Your task to perform on an android device: change notification settings in the gmail app Image 0: 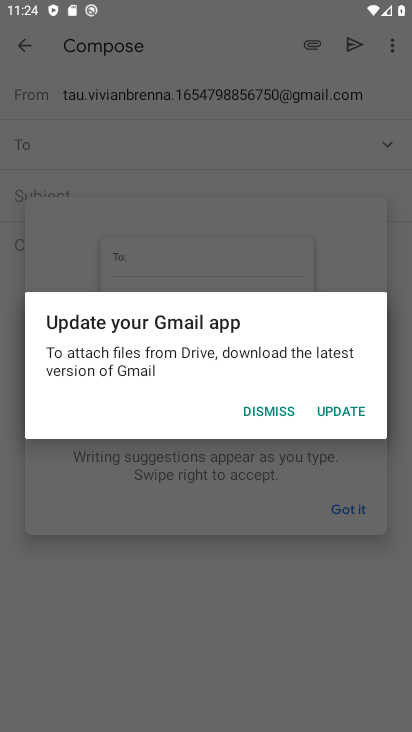
Step 0: press home button
Your task to perform on an android device: change notification settings in the gmail app Image 1: 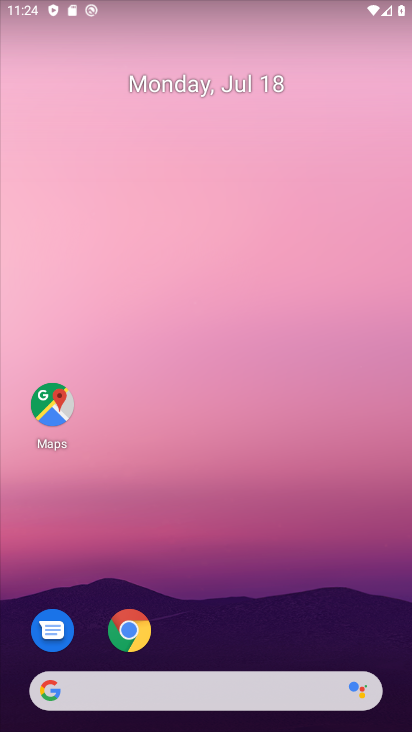
Step 1: drag from (227, 611) to (282, 177)
Your task to perform on an android device: change notification settings in the gmail app Image 2: 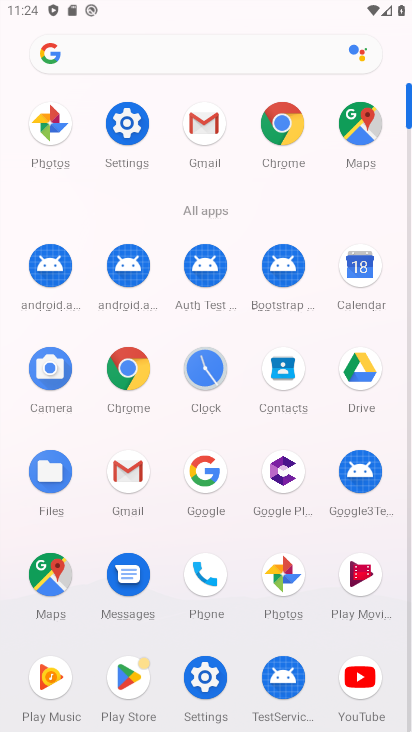
Step 2: click (133, 488)
Your task to perform on an android device: change notification settings in the gmail app Image 3: 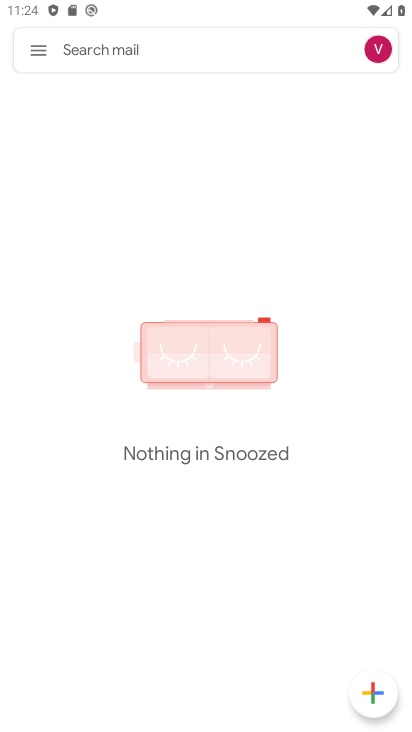
Step 3: click (42, 42)
Your task to perform on an android device: change notification settings in the gmail app Image 4: 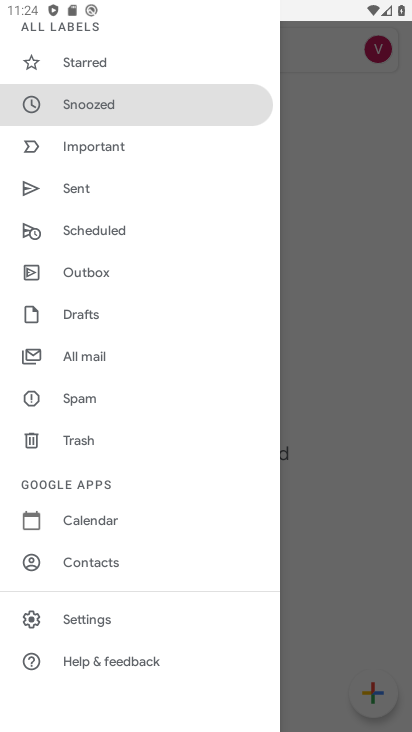
Step 4: click (97, 618)
Your task to perform on an android device: change notification settings in the gmail app Image 5: 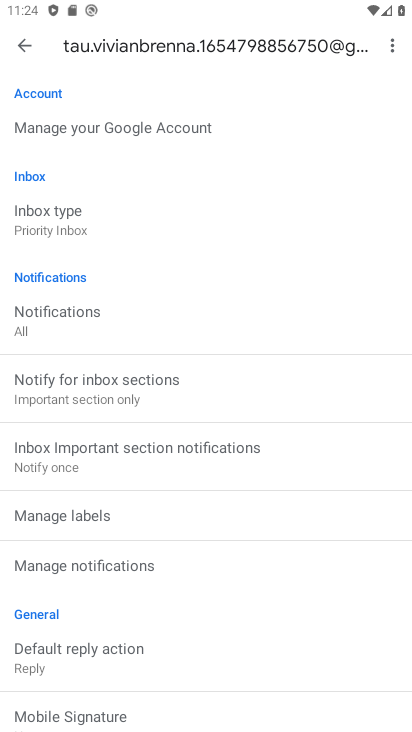
Step 5: click (22, 42)
Your task to perform on an android device: change notification settings in the gmail app Image 6: 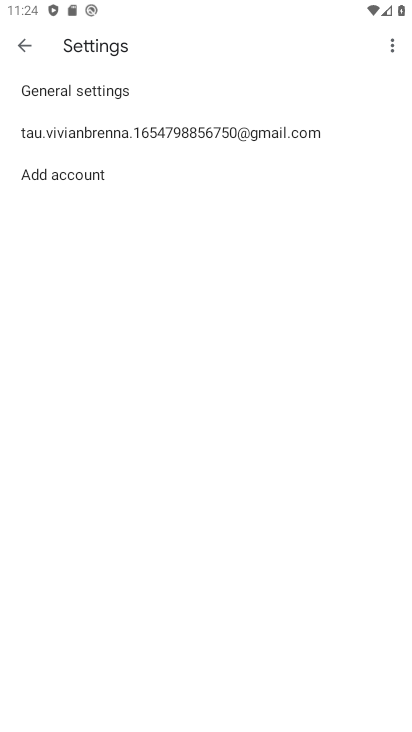
Step 6: click (100, 94)
Your task to perform on an android device: change notification settings in the gmail app Image 7: 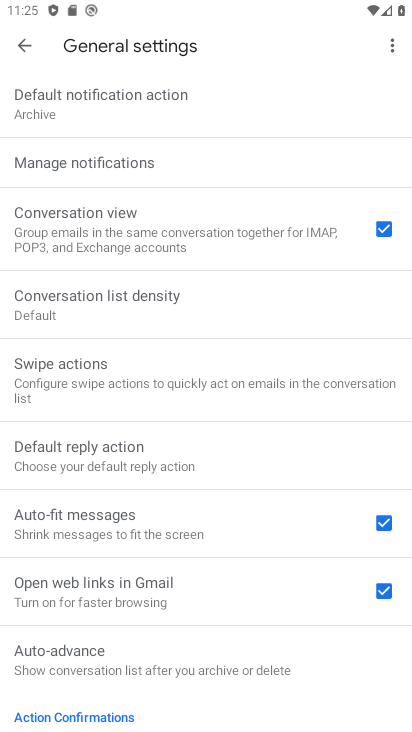
Step 7: click (134, 168)
Your task to perform on an android device: change notification settings in the gmail app Image 8: 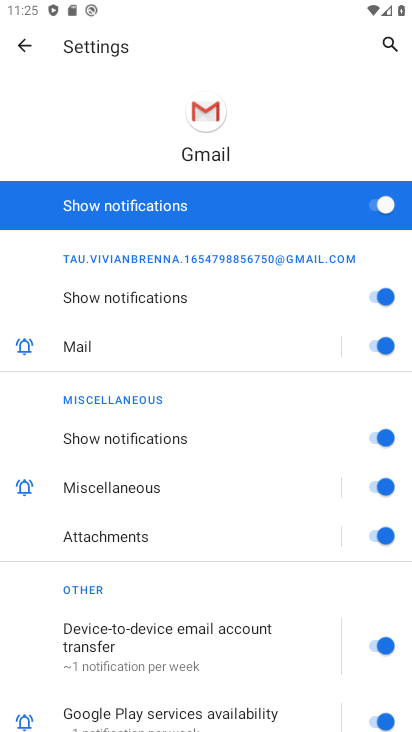
Step 8: click (350, 206)
Your task to perform on an android device: change notification settings in the gmail app Image 9: 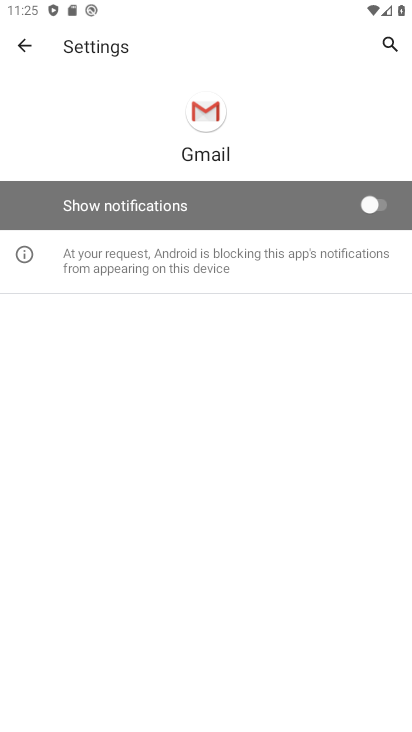
Step 9: task complete